Your task to perform on an android device: Show me recent news Image 0: 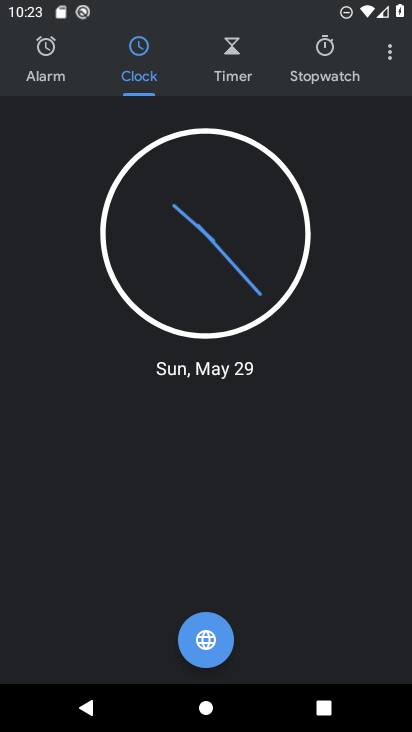
Step 0: press home button
Your task to perform on an android device: Show me recent news Image 1: 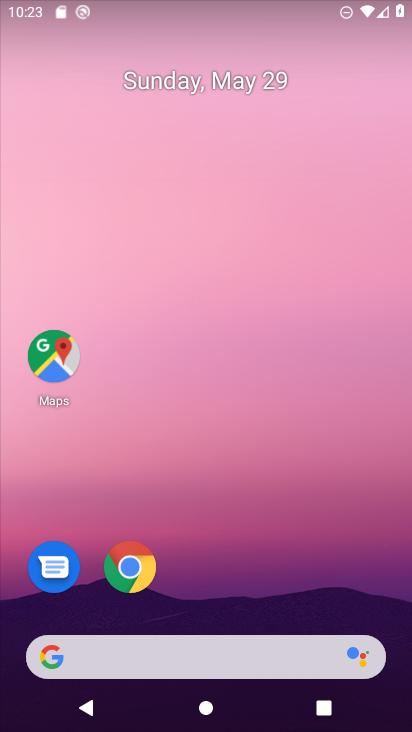
Step 1: task complete